Your task to perform on an android device: Go to wifi settings Image 0: 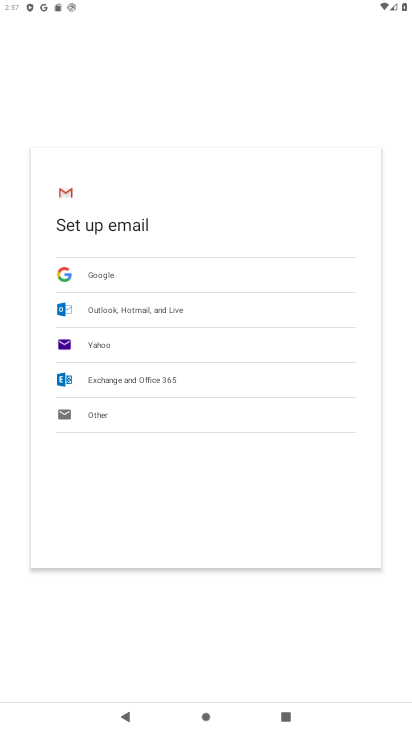
Step 0: press home button
Your task to perform on an android device: Go to wifi settings Image 1: 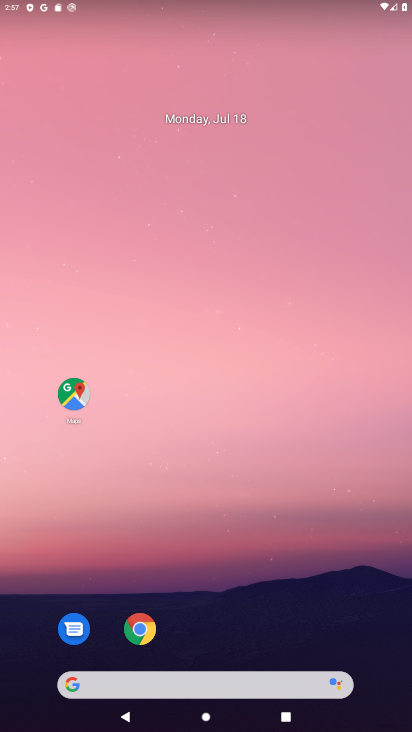
Step 1: drag from (212, 644) to (137, 37)
Your task to perform on an android device: Go to wifi settings Image 2: 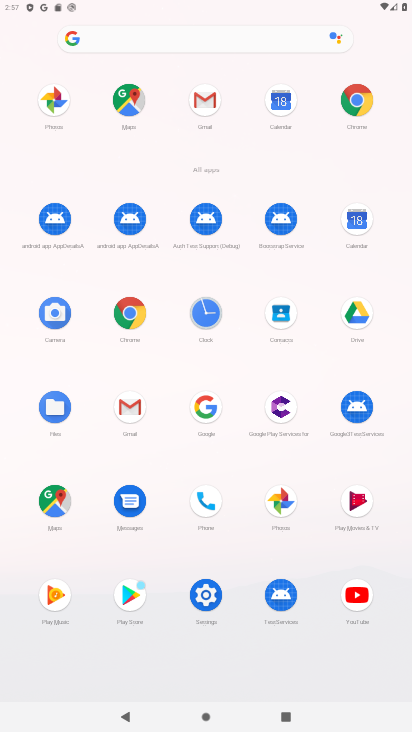
Step 2: click (209, 599)
Your task to perform on an android device: Go to wifi settings Image 3: 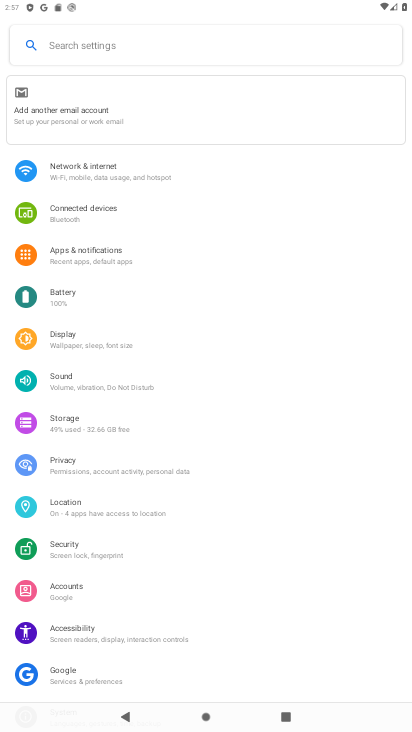
Step 3: click (73, 168)
Your task to perform on an android device: Go to wifi settings Image 4: 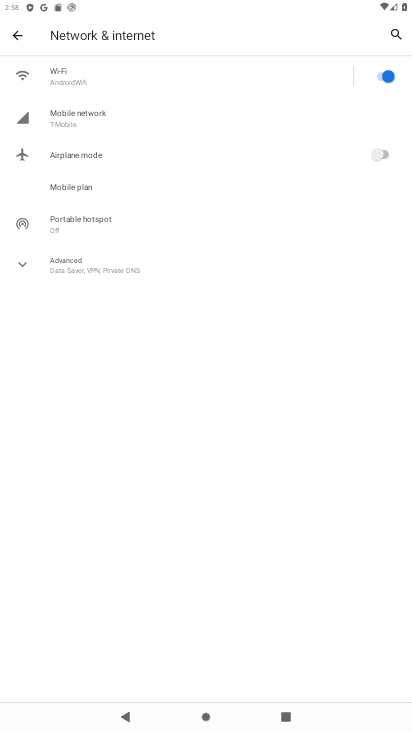
Step 4: click (52, 67)
Your task to perform on an android device: Go to wifi settings Image 5: 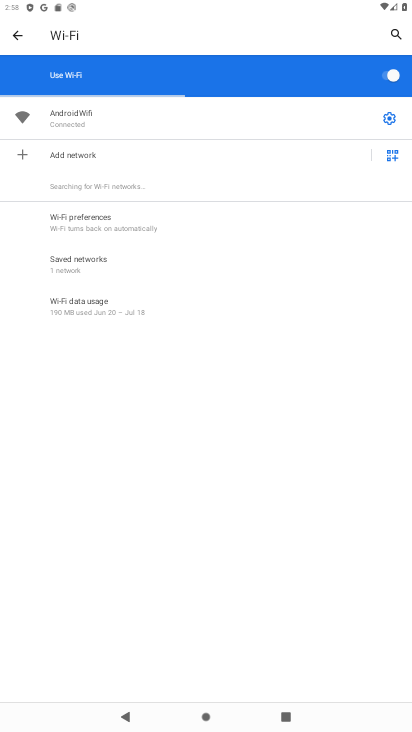
Step 5: task complete